Your task to perform on an android device: turn off sleep mode Image 0: 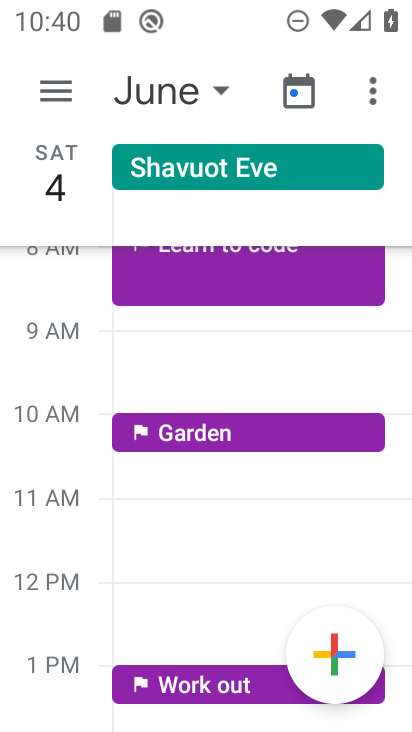
Step 0: press home button
Your task to perform on an android device: turn off sleep mode Image 1: 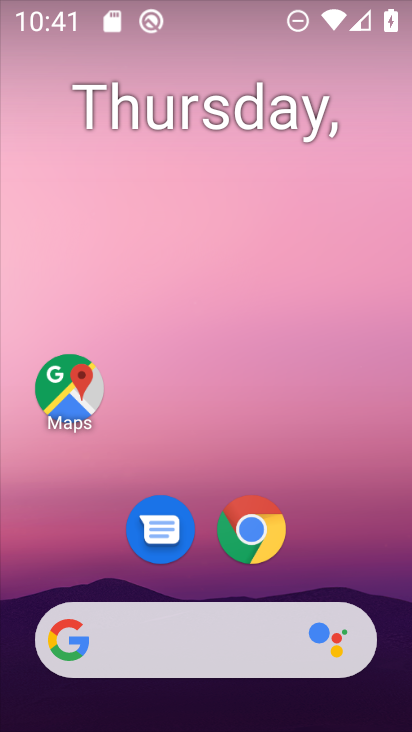
Step 1: drag from (182, 703) to (236, 110)
Your task to perform on an android device: turn off sleep mode Image 2: 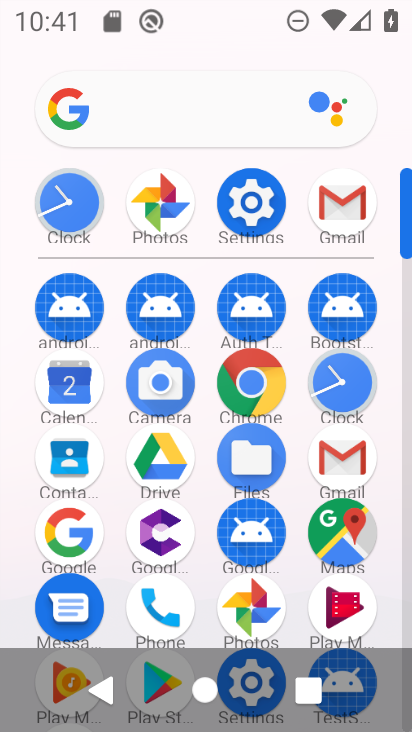
Step 2: click (246, 192)
Your task to perform on an android device: turn off sleep mode Image 3: 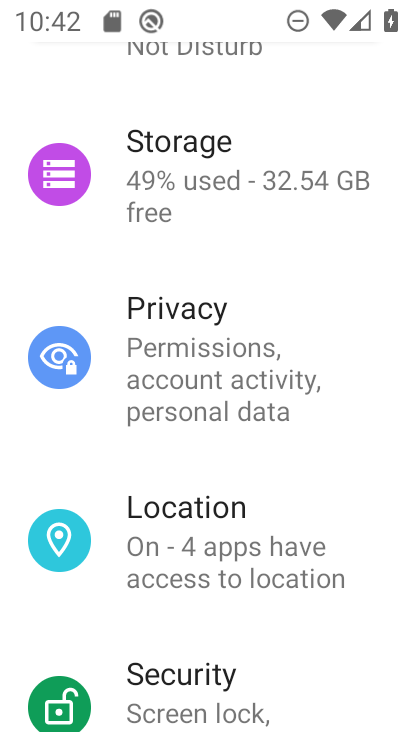
Step 3: drag from (296, 677) to (203, 52)
Your task to perform on an android device: turn off sleep mode Image 4: 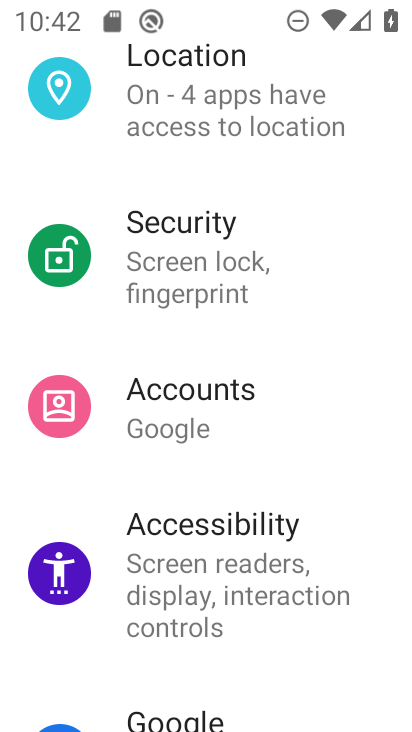
Step 4: drag from (297, 660) to (184, 30)
Your task to perform on an android device: turn off sleep mode Image 5: 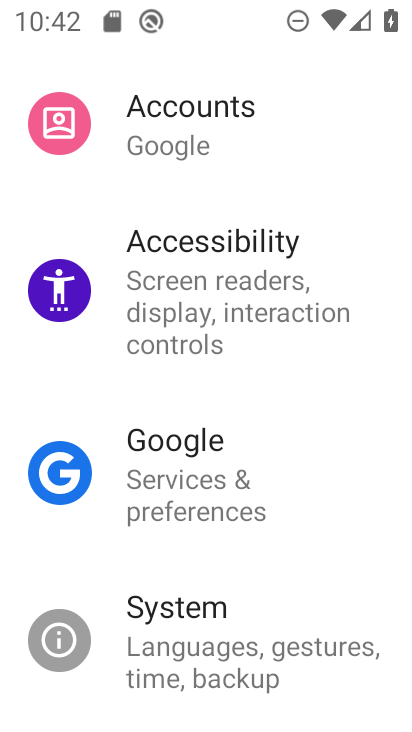
Step 5: drag from (279, 464) to (216, 18)
Your task to perform on an android device: turn off sleep mode Image 6: 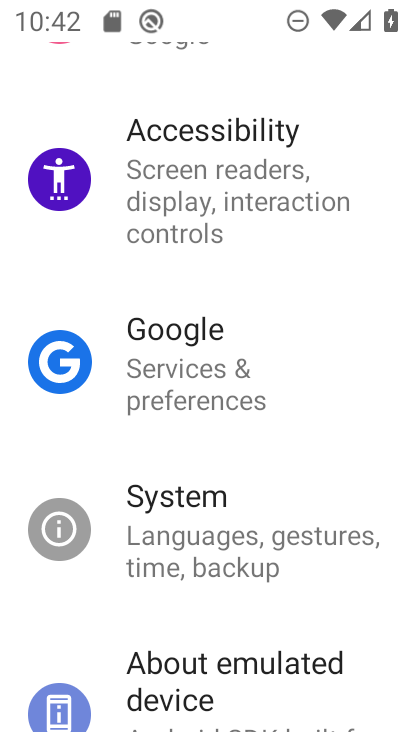
Step 6: drag from (343, 533) to (324, 129)
Your task to perform on an android device: turn off sleep mode Image 7: 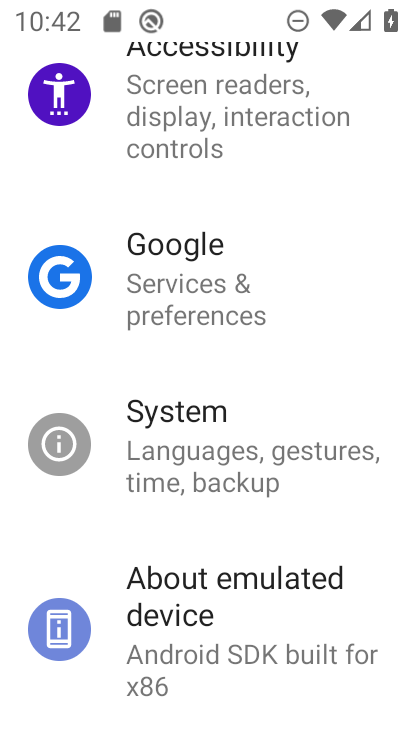
Step 7: drag from (307, 201) to (253, 618)
Your task to perform on an android device: turn off sleep mode Image 8: 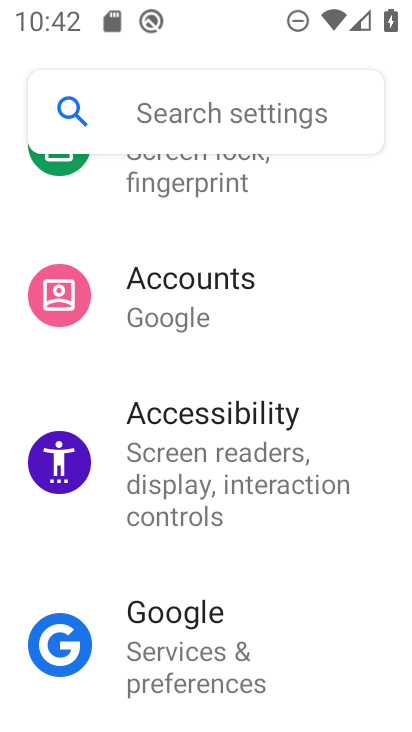
Step 8: drag from (294, 180) to (222, 698)
Your task to perform on an android device: turn off sleep mode Image 9: 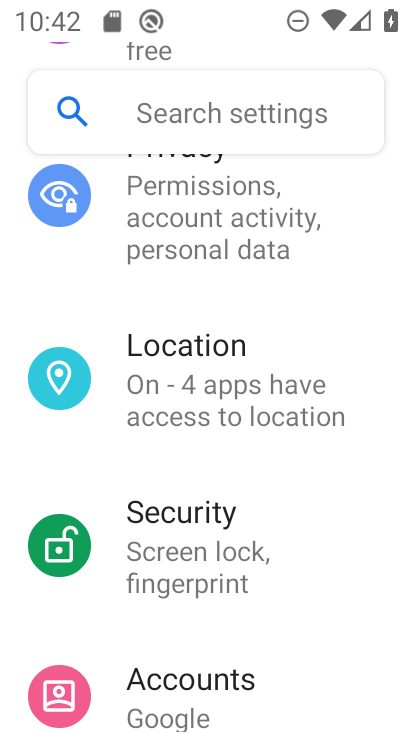
Step 9: drag from (317, 243) to (234, 717)
Your task to perform on an android device: turn off sleep mode Image 10: 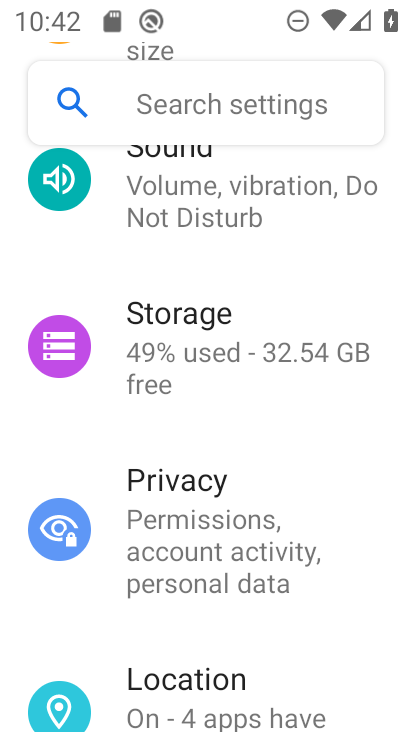
Step 10: drag from (366, 219) to (251, 722)
Your task to perform on an android device: turn off sleep mode Image 11: 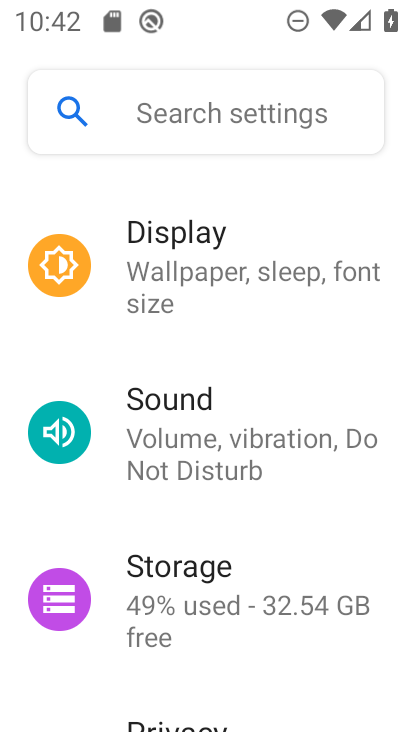
Step 11: drag from (334, 465) to (277, 709)
Your task to perform on an android device: turn off sleep mode Image 12: 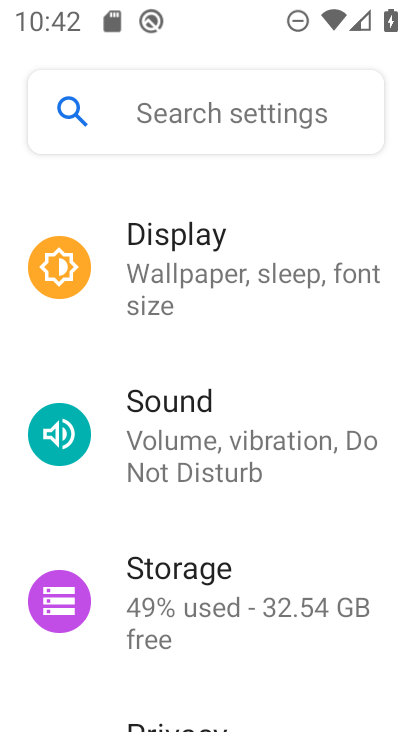
Step 12: click (306, 271)
Your task to perform on an android device: turn off sleep mode Image 13: 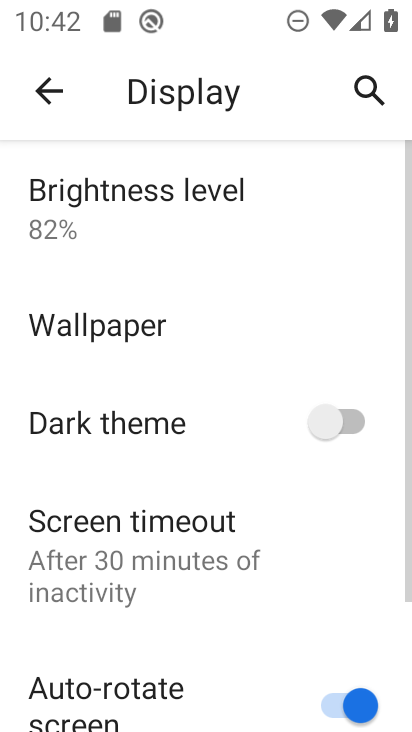
Step 13: task complete